Your task to perform on an android device: Go to accessibility settings Image 0: 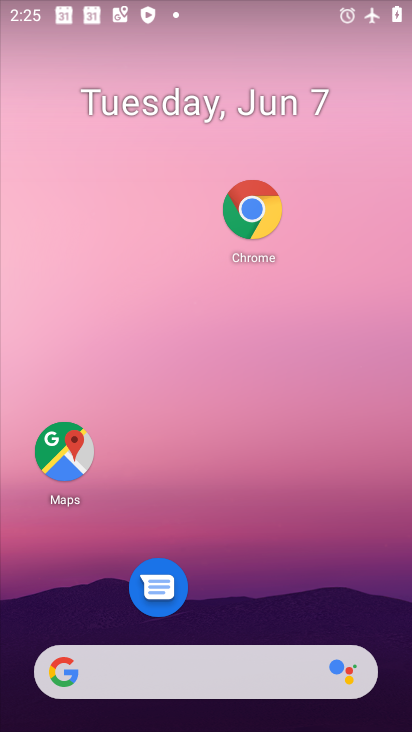
Step 0: drag from (182, 647) to (115, 159)
Your task to perform on an android device: Go to accessibility settings Image 1: 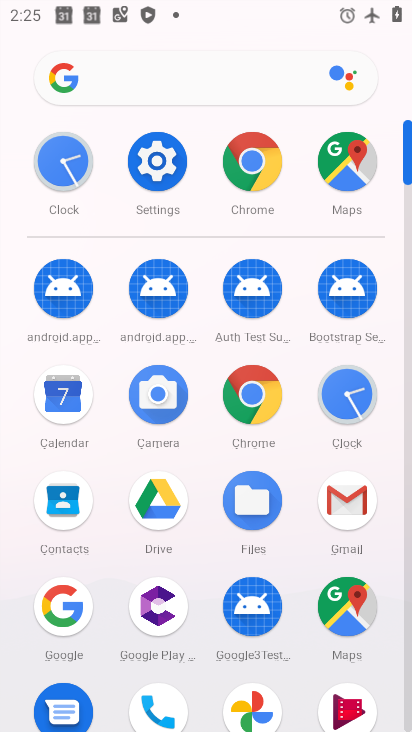
Step 1: drag from (198, 562) to (219, 333)
Your task to perform on an android device: Go to accessibility settings Image 2: 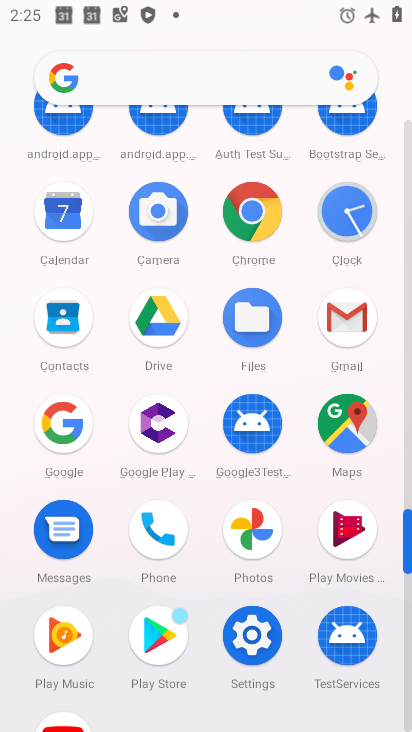
Step 2: click (248, 622)
Your task to perform on an android device: Go to accessibility settings Image 3: 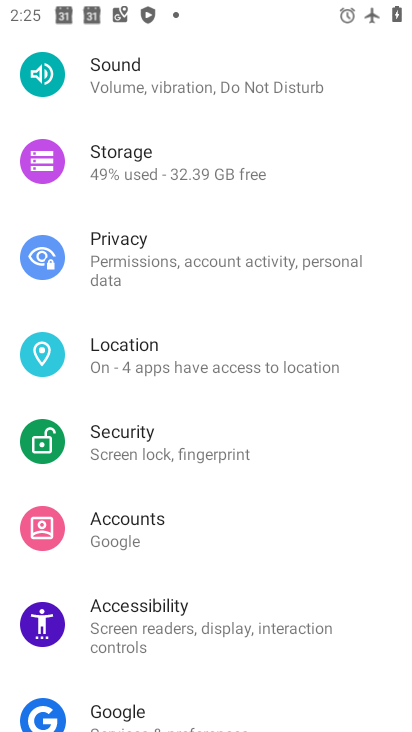
Step 3: drag from (216, 560) to (184, 228)
Your task to perform on an android device: Go to accessibility settings Image 4: 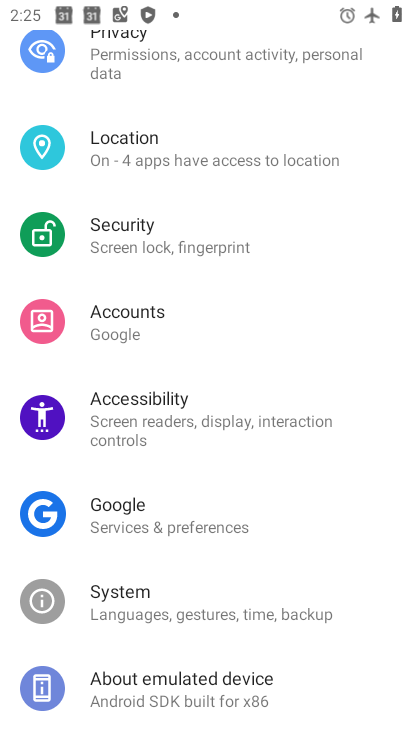
Step 4: click (189, 420)
Your task to perform on an android device: Go to accessibility settings Image 5: 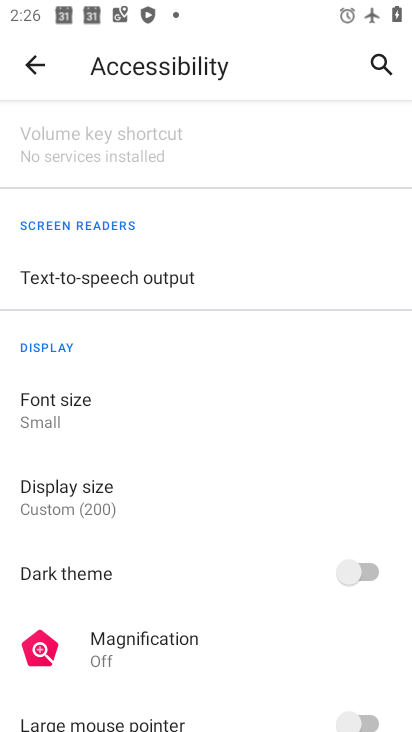
Step 5: task complete